Your task to perform on an android device: Open wifi settings Image 0: 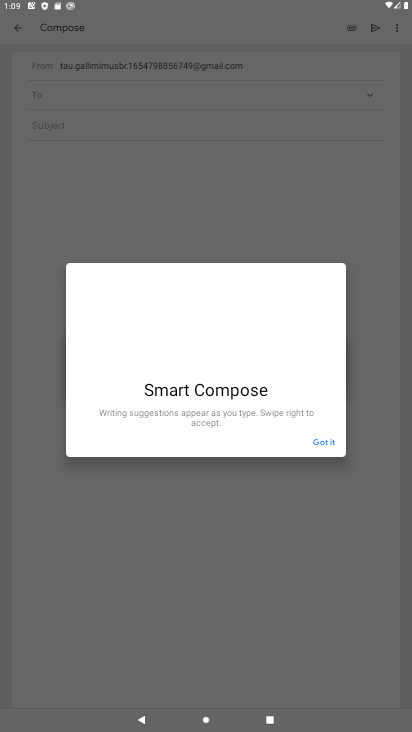
Step 0: press home button
Your task to perform on an android device: Open wifi settings Image 1: 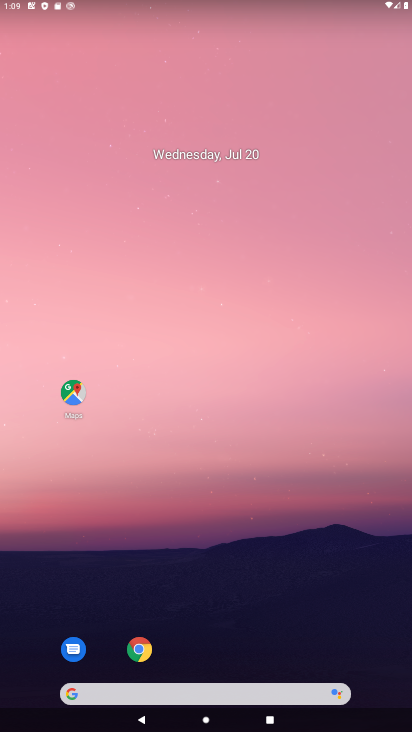
Step 1: drag from (386, 3) to (261, 549)
Your task to perform on an android device: Open wifi settings Image 2: 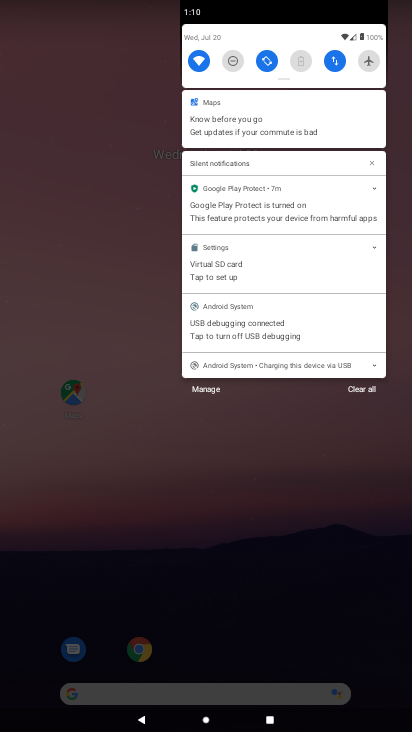
Step 2: click (204, 62)
Your task to perform on an android device: Open wifi settings Image 3: 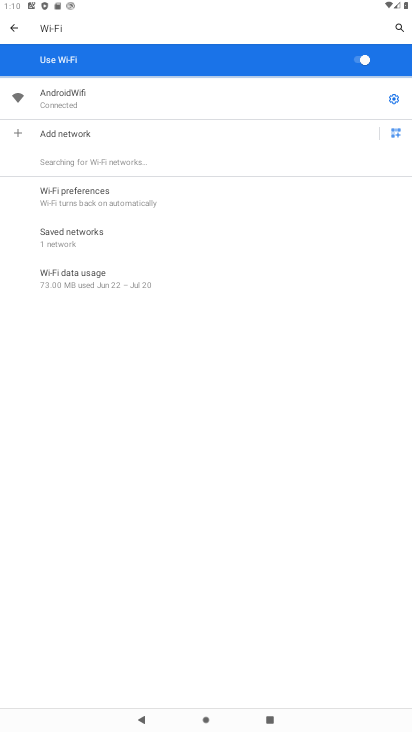
Step 3: task complete